Your task to perform on an android device: Open Google Maps and go to "Timeline" Image 0: 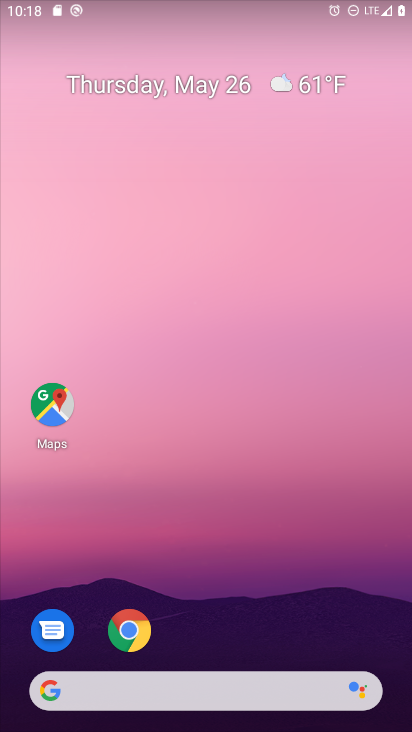
Step 0: drag from (215, 642) to (167, 123)
Your task to perform on an android device: Open Google Maps and go to "Timeline" Image 1: 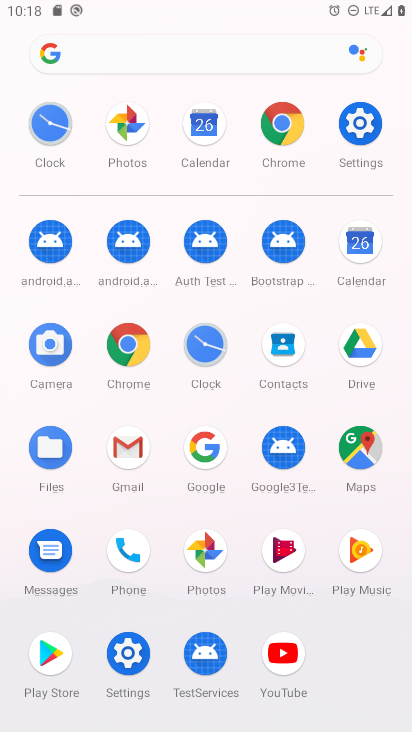
Step 1: click (369, 437)
Your task to perform on an android device: Open Google Maps and go to "Timeline" Image 2: 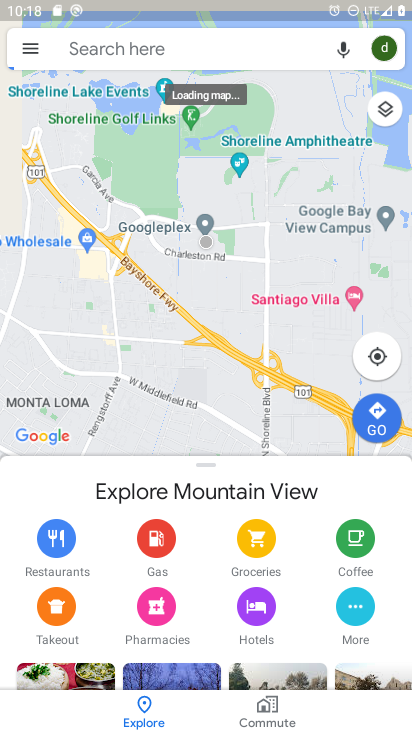
Step 2: click (26, 43)
Your task to perform on an android device: Open Google Maps and go to "Timeline" Image 3: 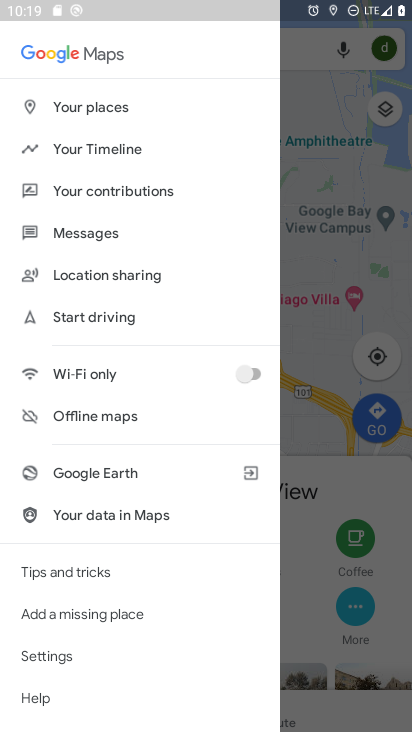
Step 3: click (68, 149)
Your task to perform on an android device: Open Google Maps and go to "Timeline" Image 4: 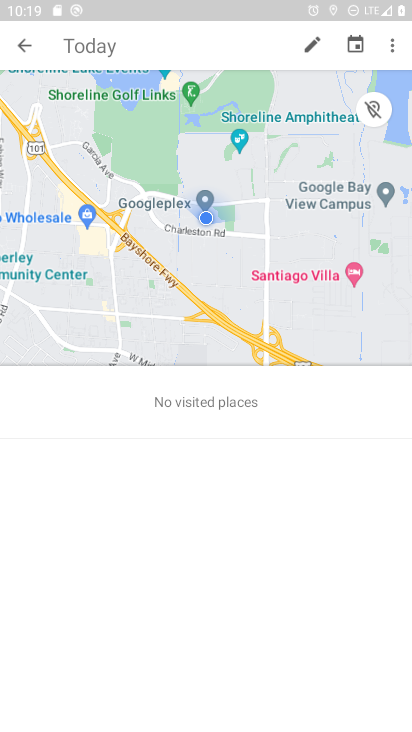
Step 4: task complete